Your task to perform on an android device: Open Android settings Image 0: 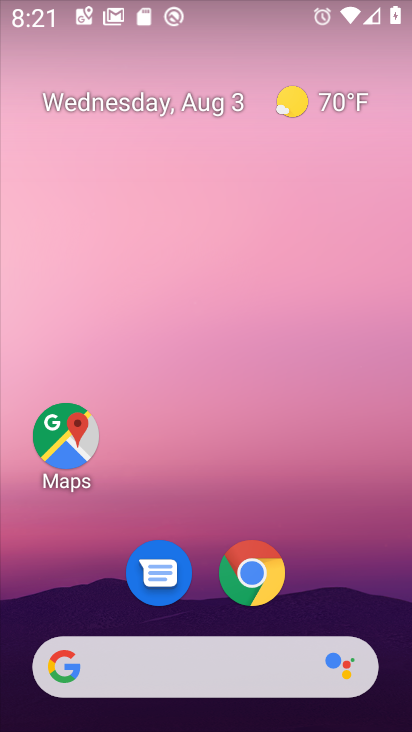
Step 0: drag from (310, 608) to (310, 4)
Your task to perform on an android device: Open Android settings Image 1: 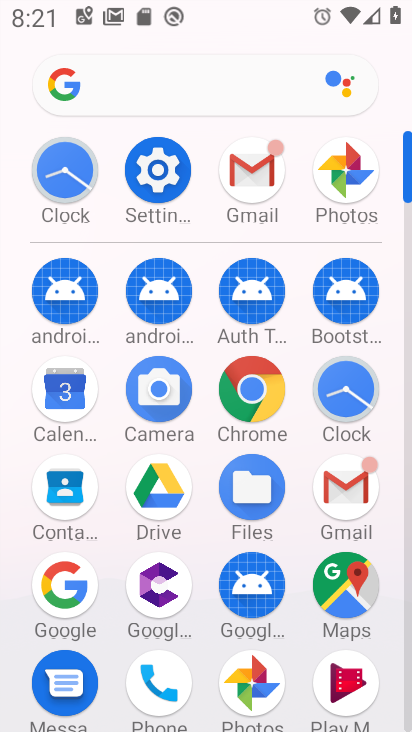
Step 1: click (147, 164)
Your task to perform on an android device: Open Android settings Image 2: 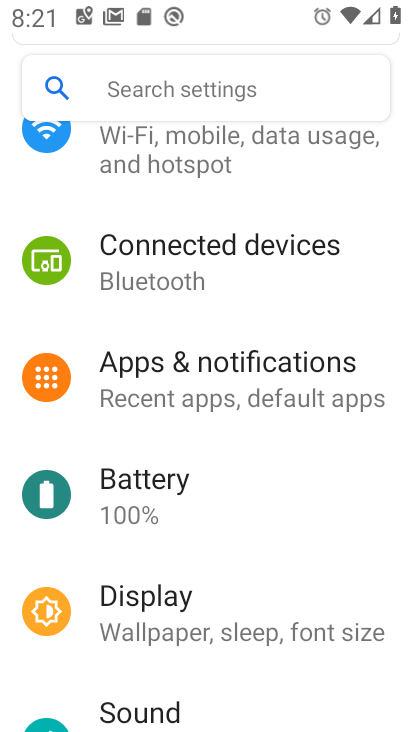
Step 2: task complete